Your task to perform on an android device: Play the last video I watched on Youtube Image 0: 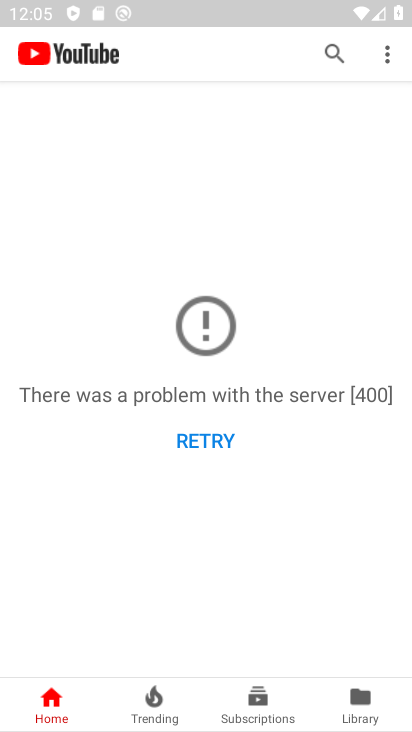
Step 0: press home button
Your task to perform on an android device: Play the last video I watched on Youtube Image 1: 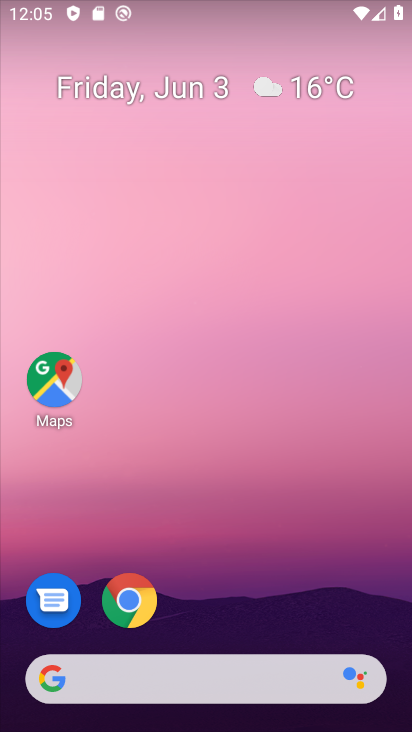
Step 1: drag from (287, 558) to (264, 314)
Your task to perform on an android device: Play the last video I watched on Youtube Image 2: 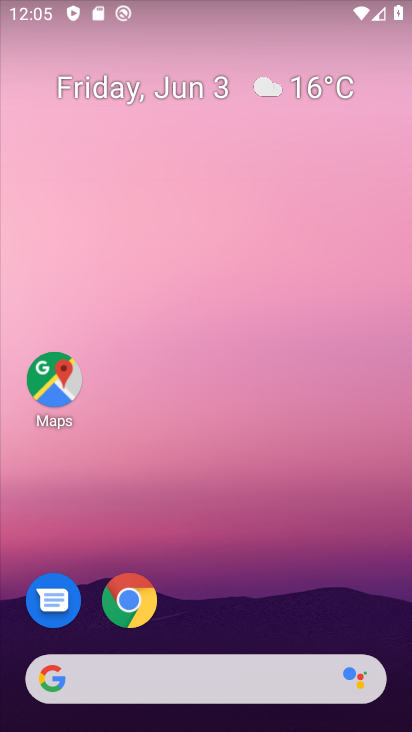
Step 2: drag from (309, 525) to (302, 283)
Your task to perform on an android device: Play the last video I watched on Youtube Image 3: 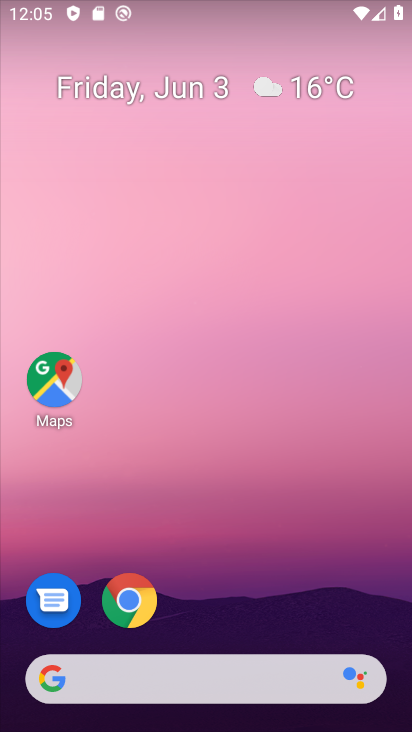
Step 3: drag from (318, 613) to (287, 187)
Your task to perform on an android device: Play the last video I watched on Youtube Image 4: 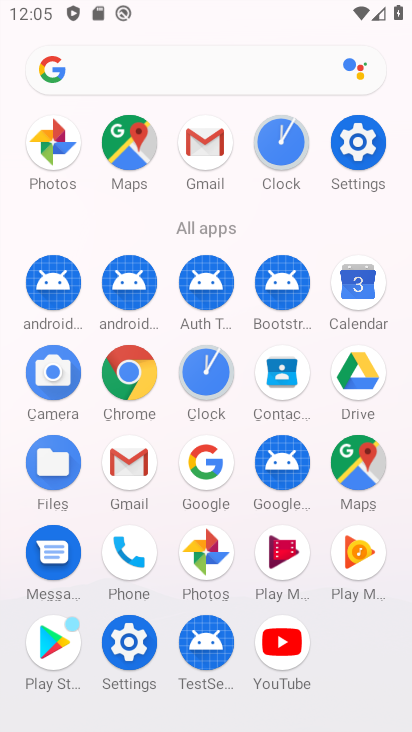
Step 4: click (300, 649)
Your task to perform on an android device: Play the last video I watched on Youtube Image 5: 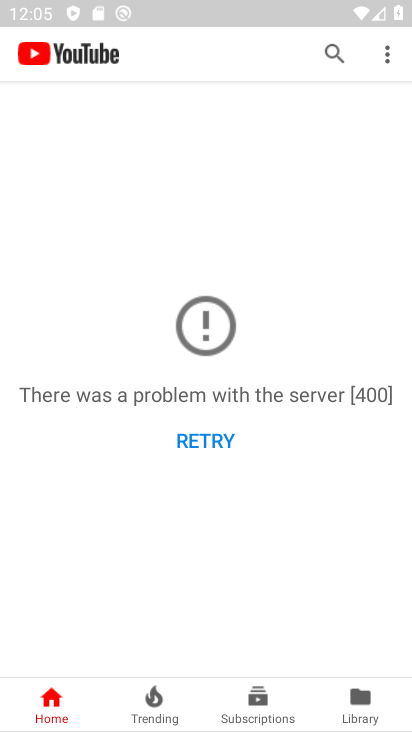
Step 5: click (238, 448)
Your task to perform on an android device: Play the last video I watched on Youtube Image 6: 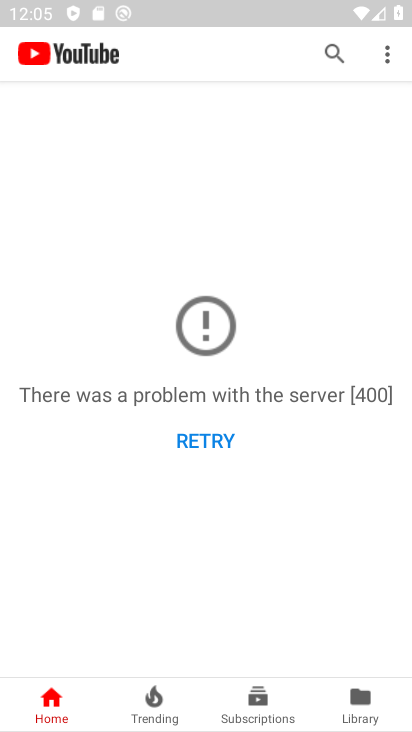
Step 6: task complete